Your task to perform on an android device: Go to accessibility settings Image 0: 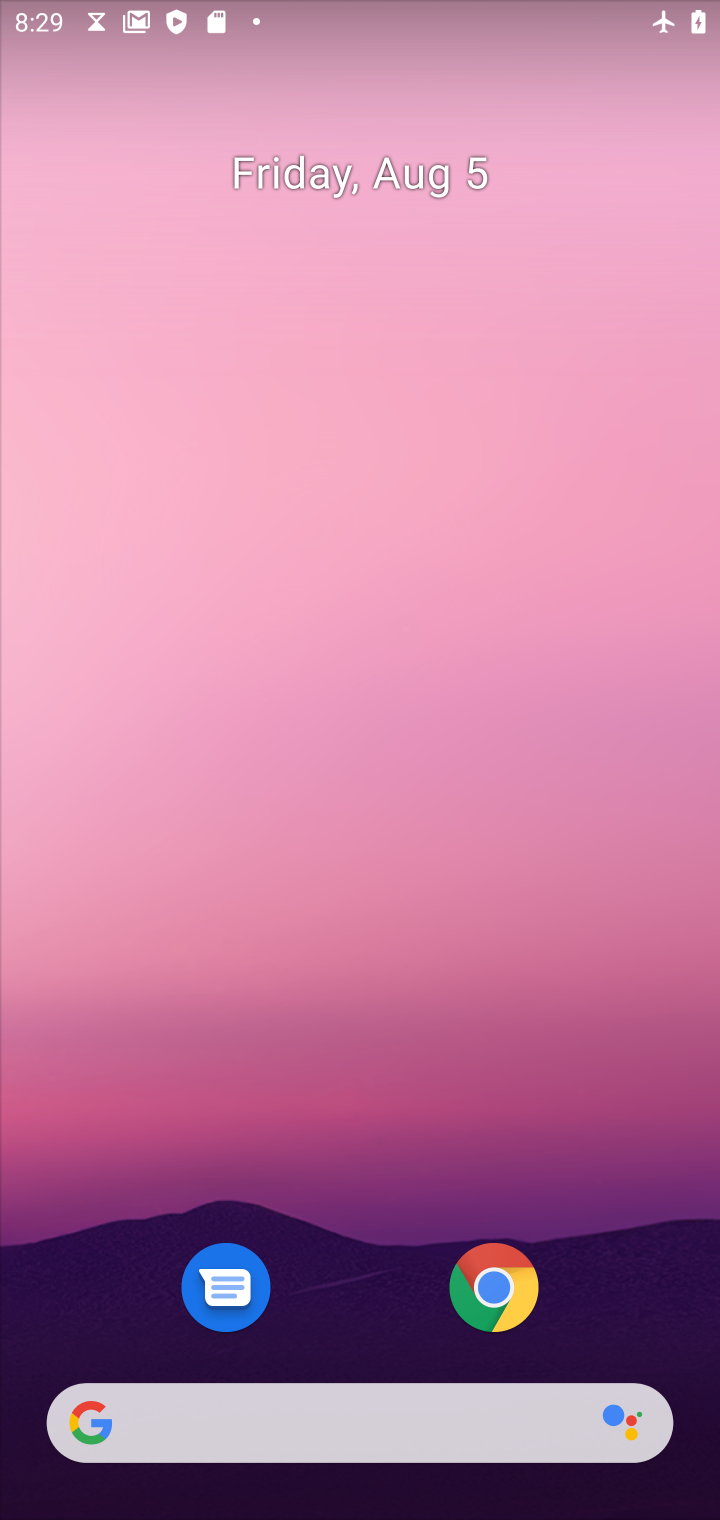
Step 0: click (367, 133)
Your task to perform on an android device: Go to accessibility settings Image 1: 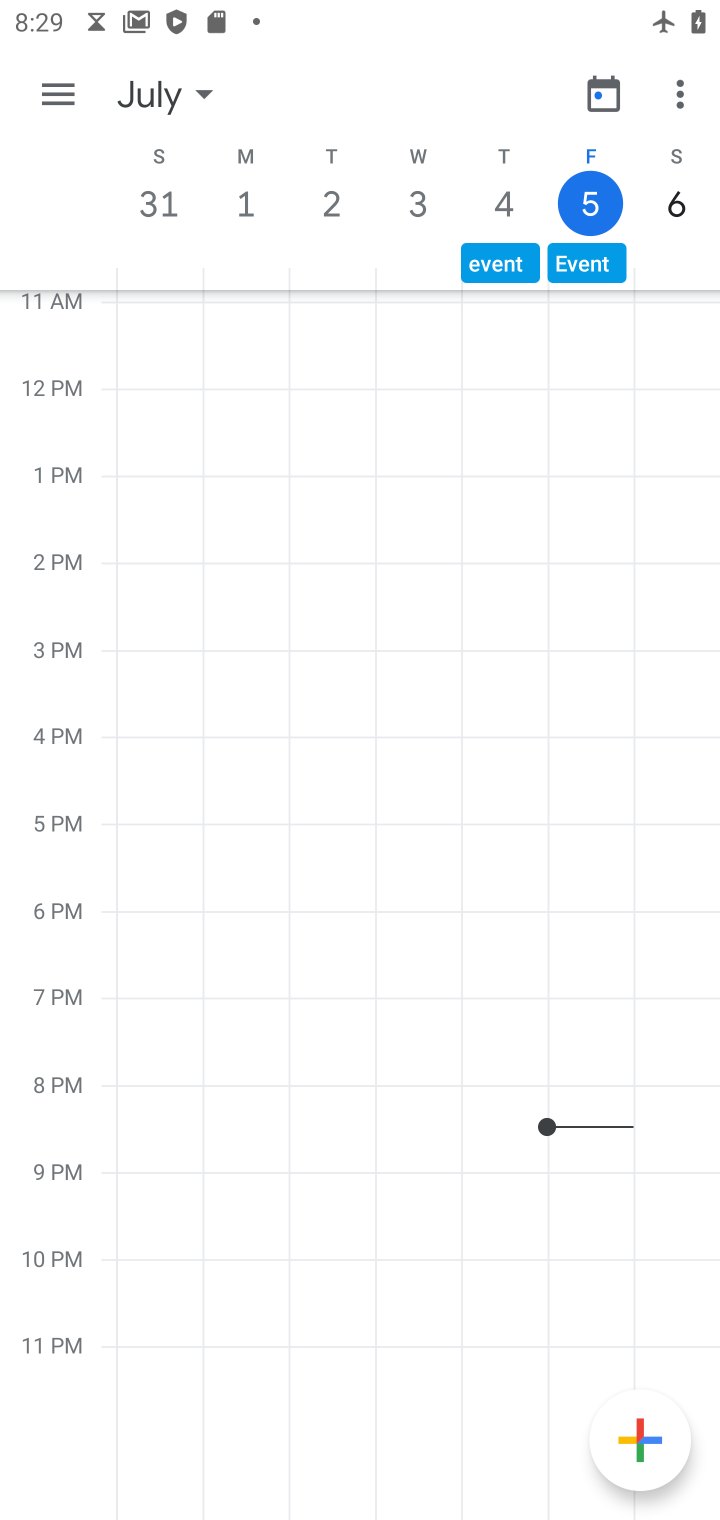
Step 1: press home button
Your task to perform on an android device: Go to accessibility settings Image 2: 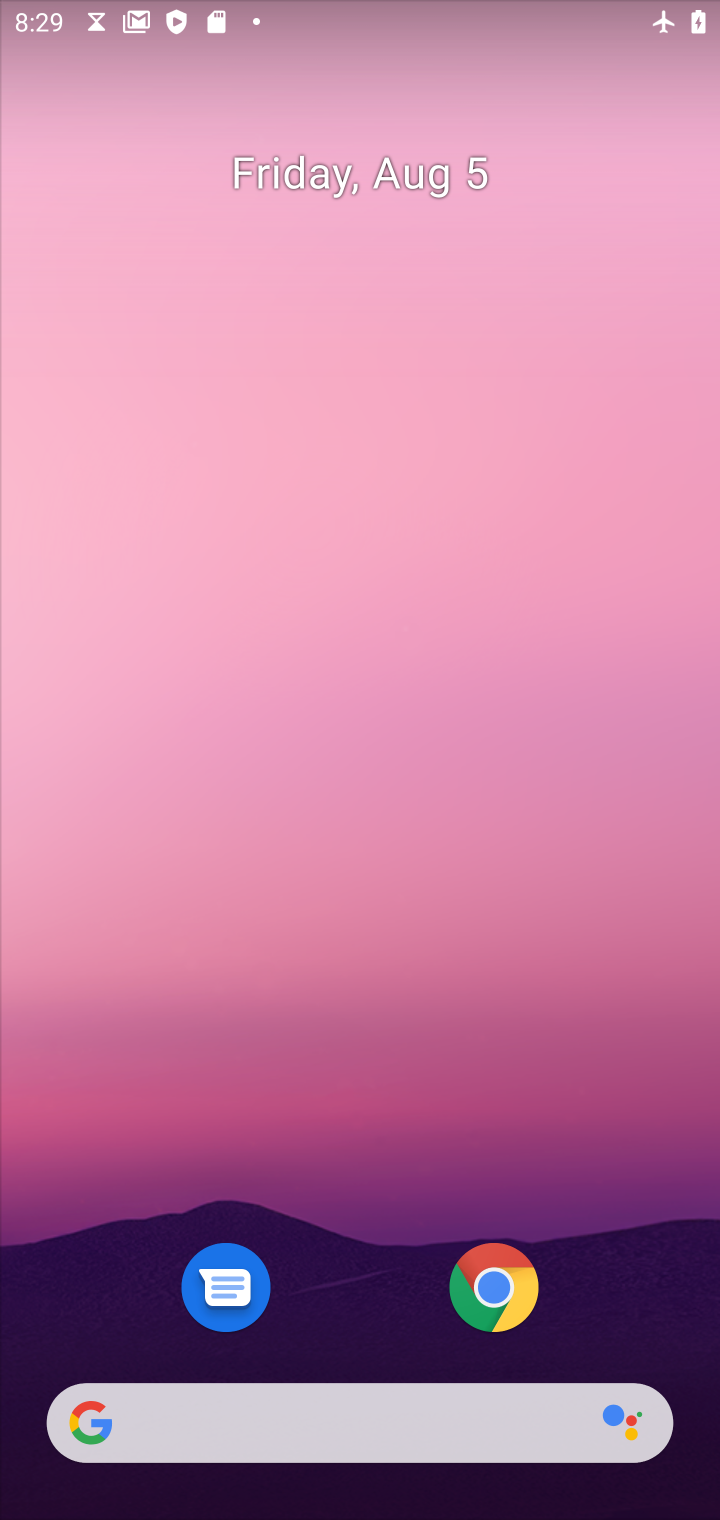
Step 2: drag from (377, 1329) to (489, 175)
Your task to perform on an android device: Go to accessibility settings Image 3: 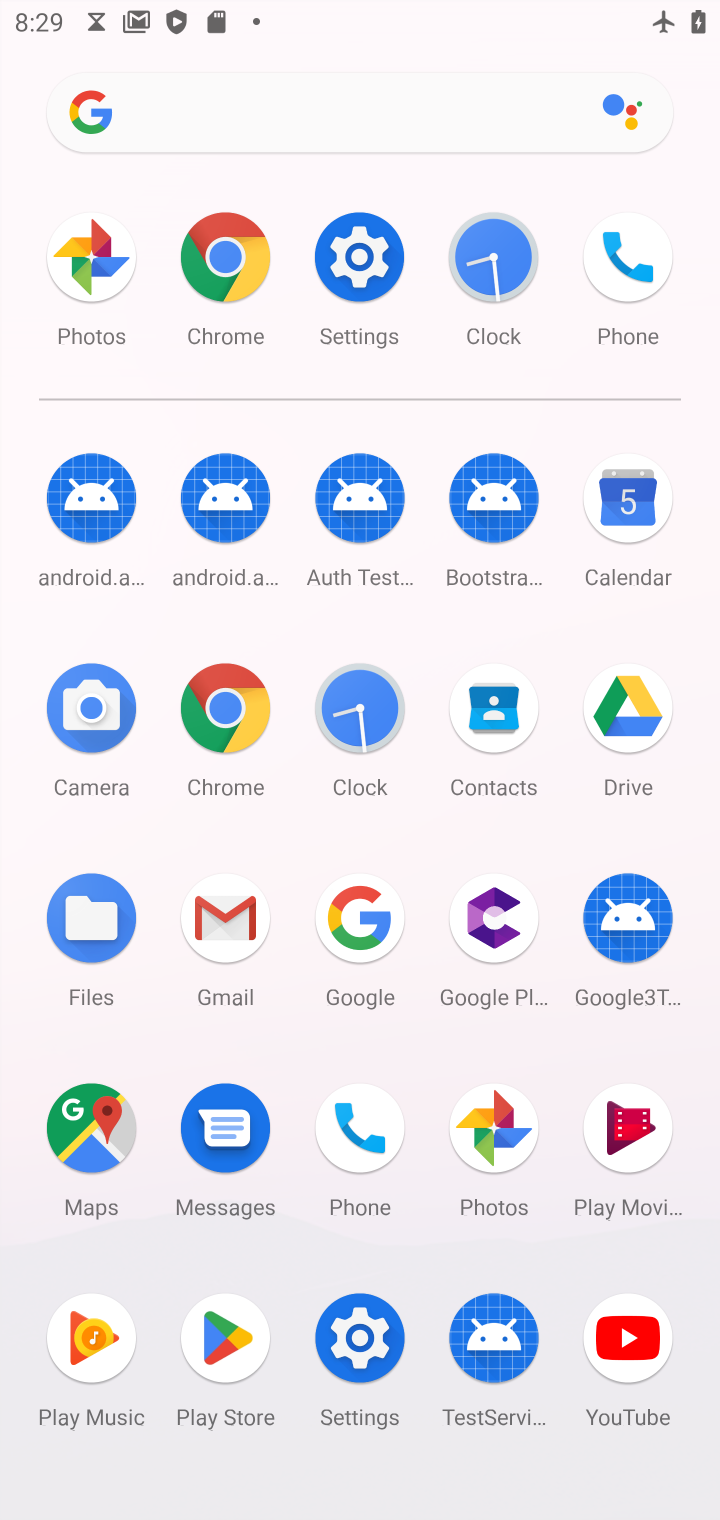
Step 3: click (351, 262)
Your task to perform on an android device: Go to accessibility settings Image 4: 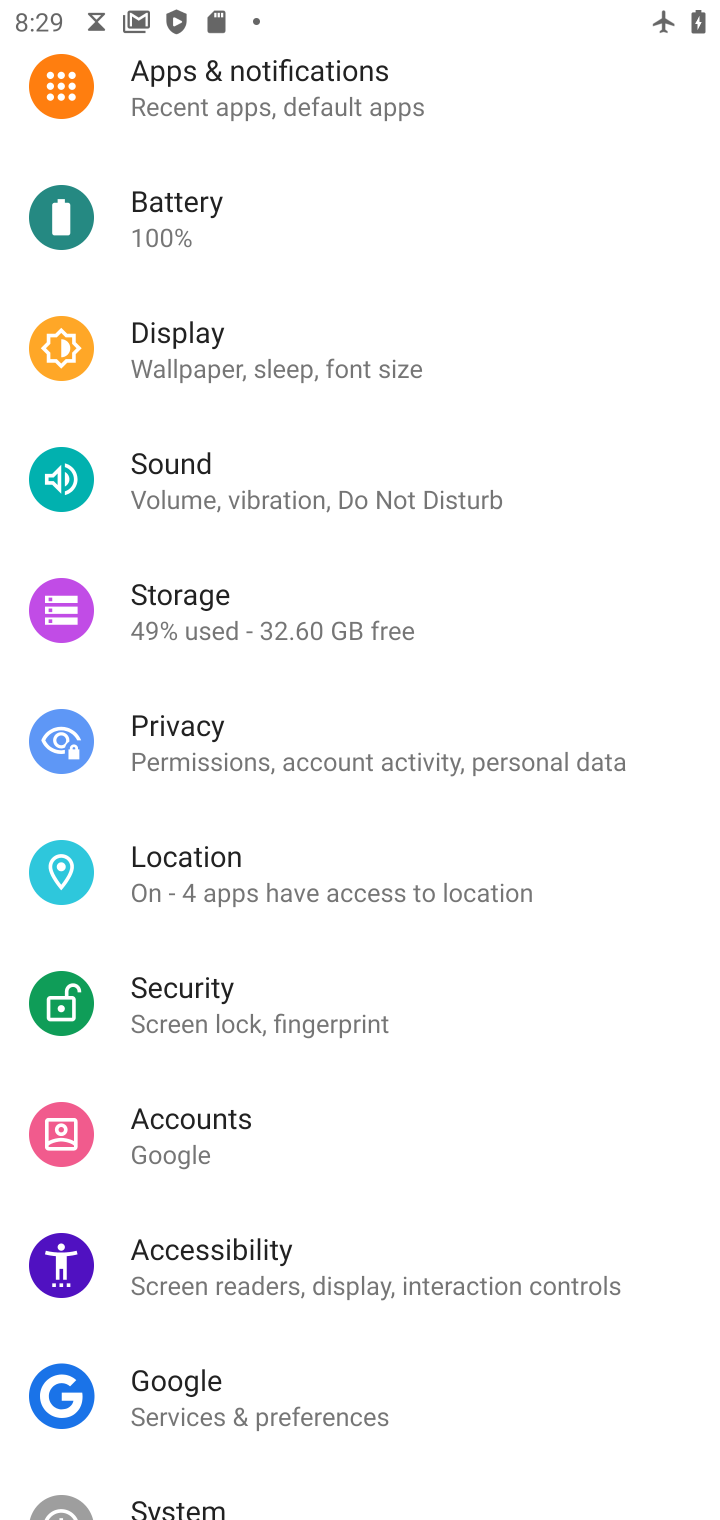
Step 4: click (235, 1253)
Your task to perform on an android device: Go to accessibility settings Image 5: 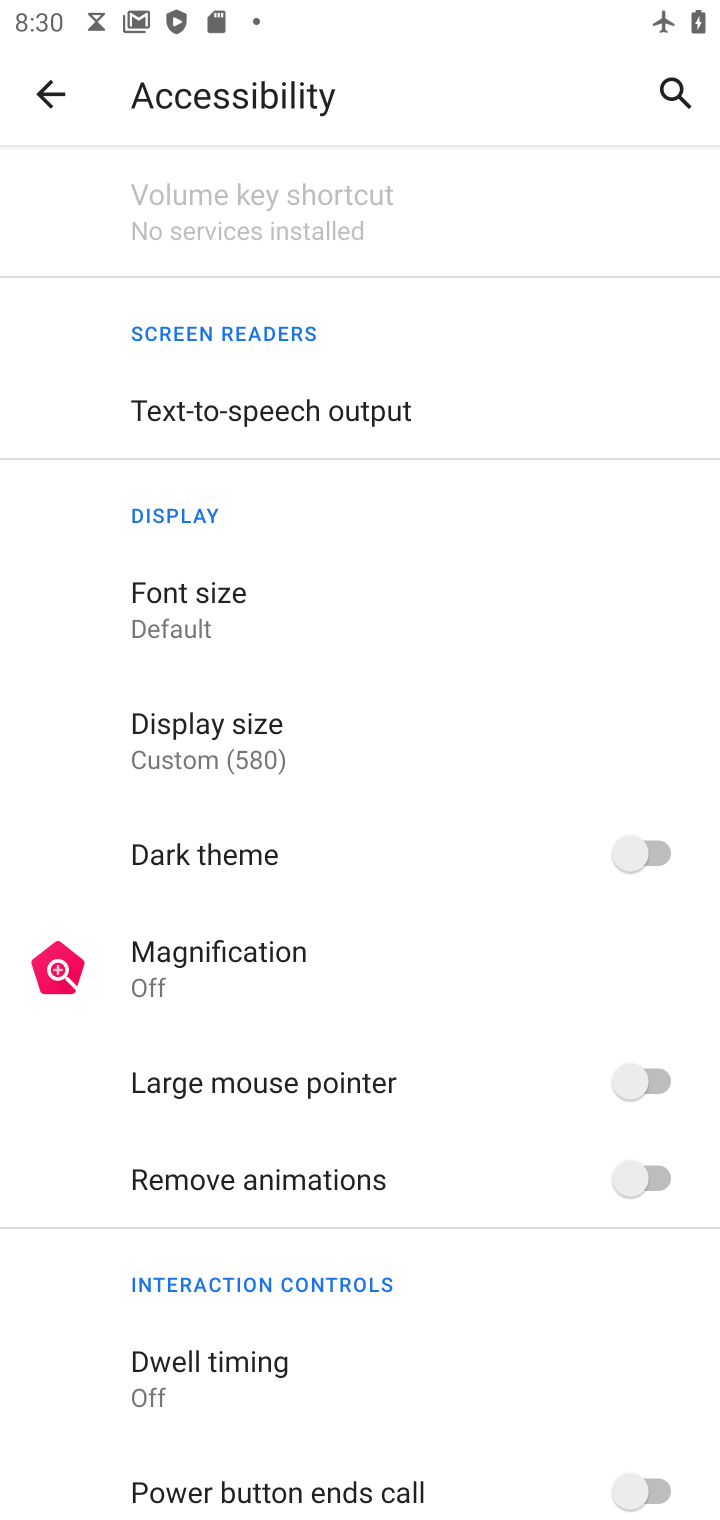
Step 5: task complete